Your task to perform on an android device: Check the news Image 0: 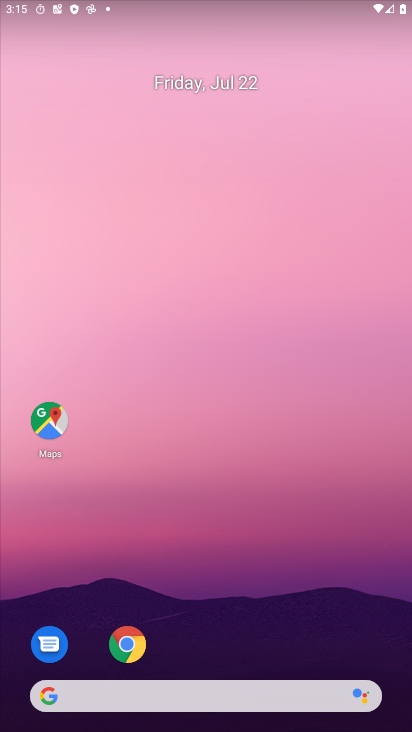
Step 0: drag from (227, 681) to (219, 164)
Your task to perform on an android device: Check the news Image 1: 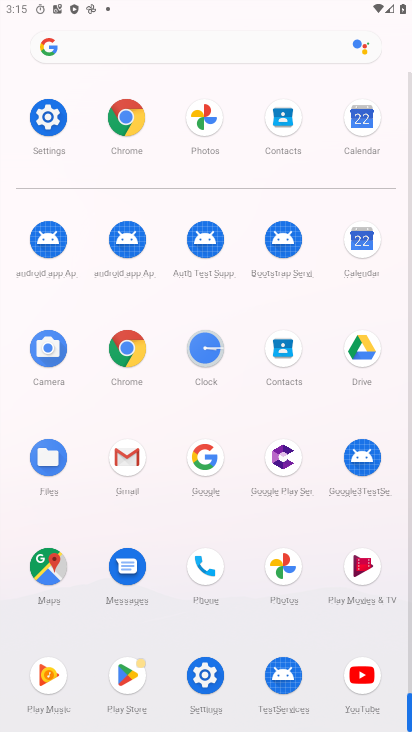
Step 1: click (198, 482)
Your task to perform on an android device: Check the news Image 2: 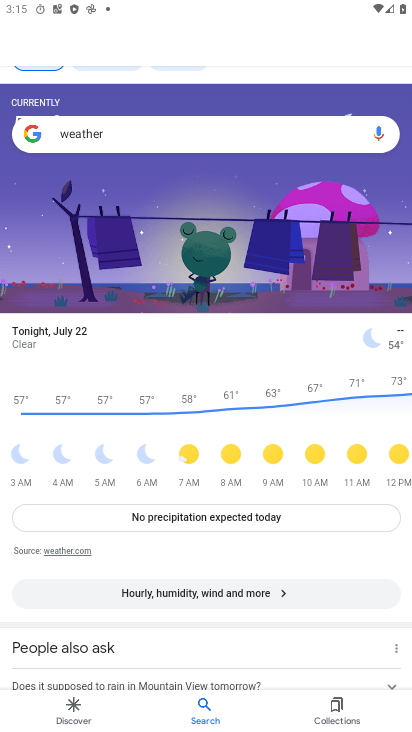
Step 2: click (259, 253)
Your task to perform on an android device: Check the news Image 3: 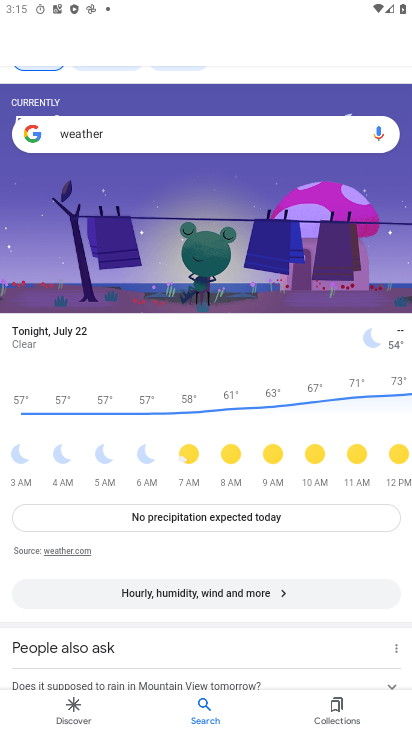
Step 3: click (259, 253)
Your task to perform on an android device: Check the news Image 4: 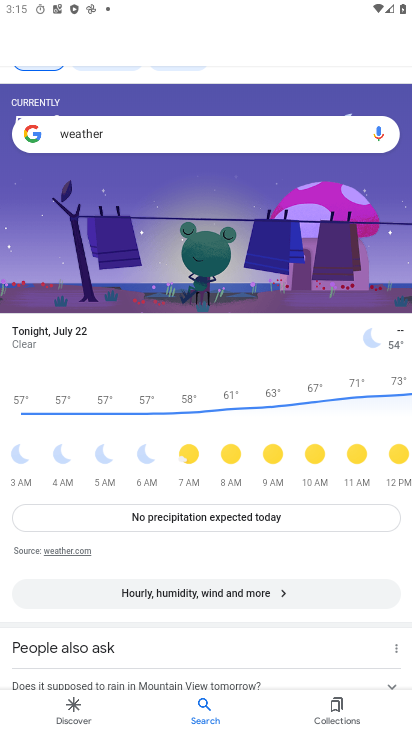
Step 4: drag from (208, 187) to (194, 710)
Your task to perform on an android device: Check the news Image 5: 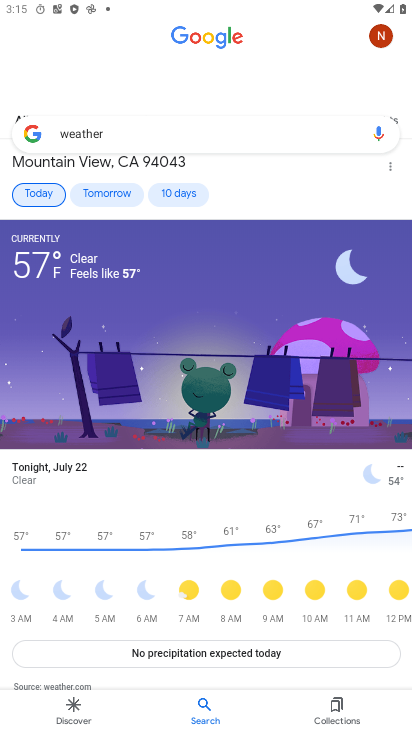
Step 5: click (176, 138)
Your task to perform on an android device: Check the news Image 6: 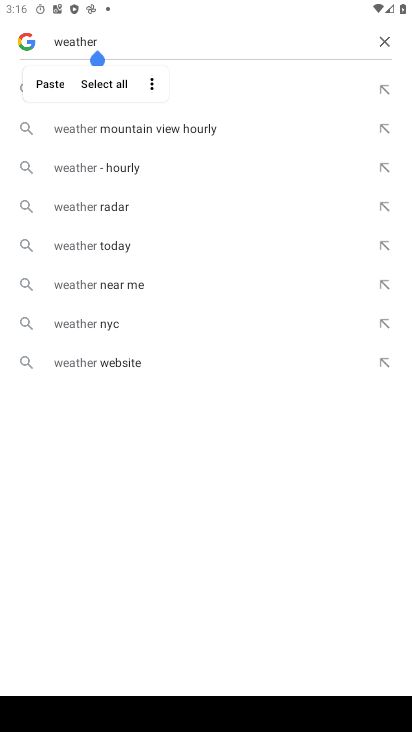
Step 6: click (386, 47)
Your task to perform on an android device: Check the news Image 7: 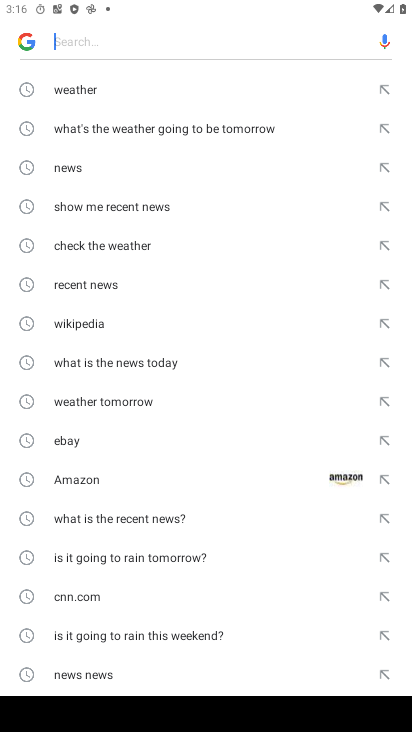
Step 7: click (79, 169)
Your task to perform on an android device: Check the news Image 8: 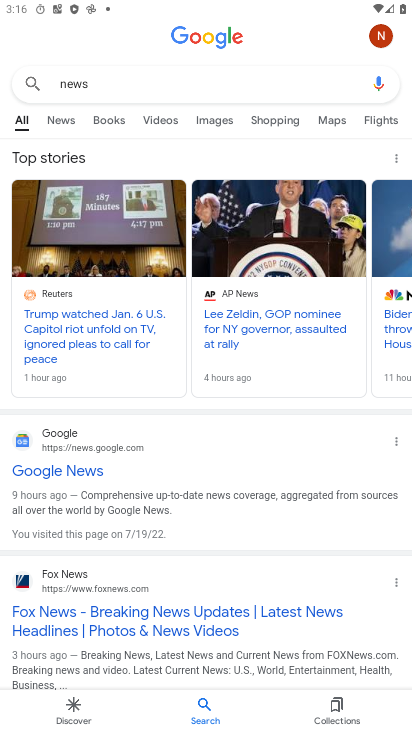
Step 8: click (64, 124)
Your task to perform on an android device: Check the news Image 9: 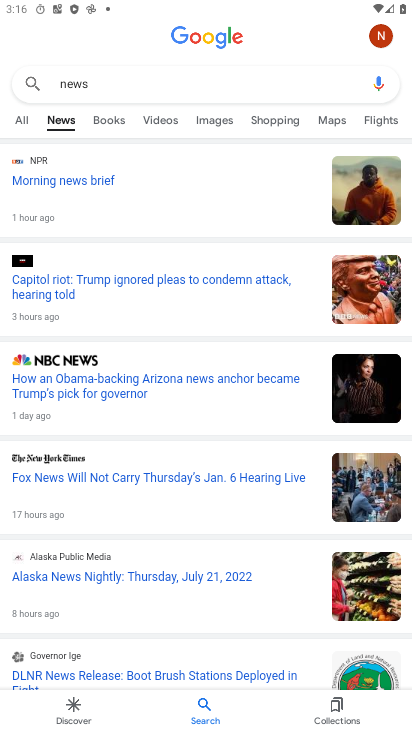
Step 9: task complete